Your task to perform on an android device: Open Google Maps and go to "Timeline" Image 0: 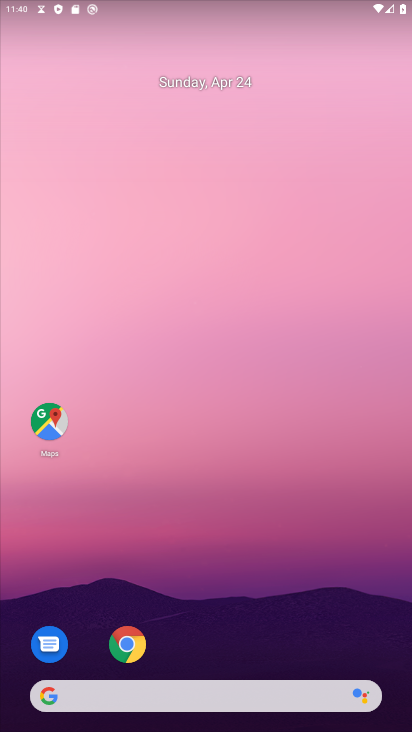
Step 0: click (50, 420)
Your task to perform on an android device: Open Google Maps and go to "Timeline" Image 1: 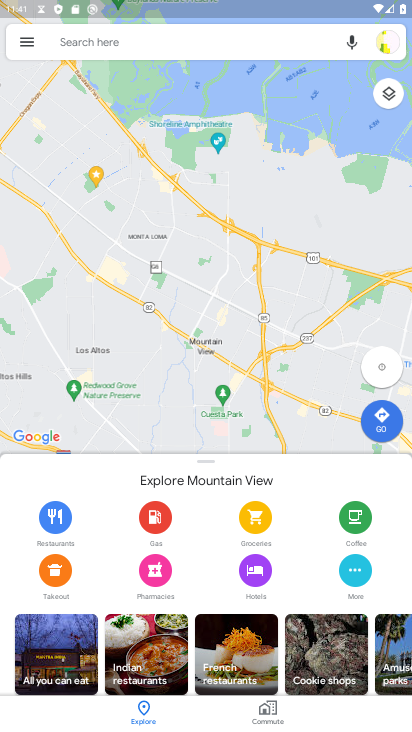
Step 1: click (26, 41)
Your task to perform on an android device: Open Google Maps and go to "Timeline" Image 2: 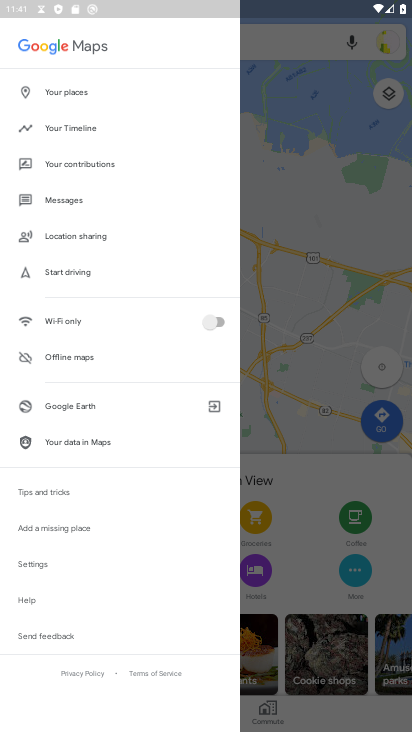
Step 2: click (53, 131)
Your task to perform on an android device: Open Google Maps and go to "Timeline" Image 3: 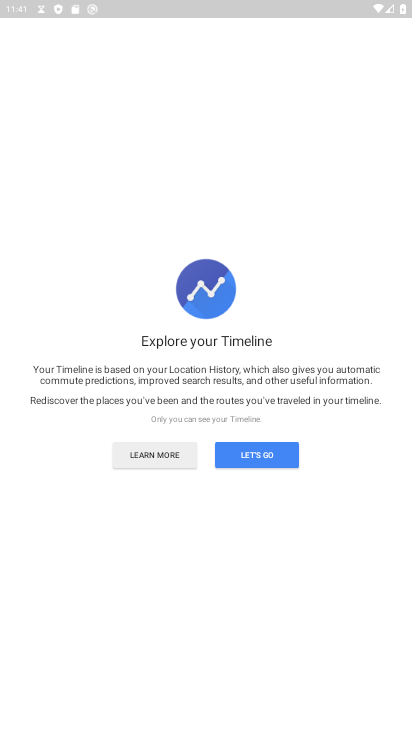
Step 3: click (255, 458)
Your task to perform on an android device: Open Google Maps and go to "Timeline" Image 4: 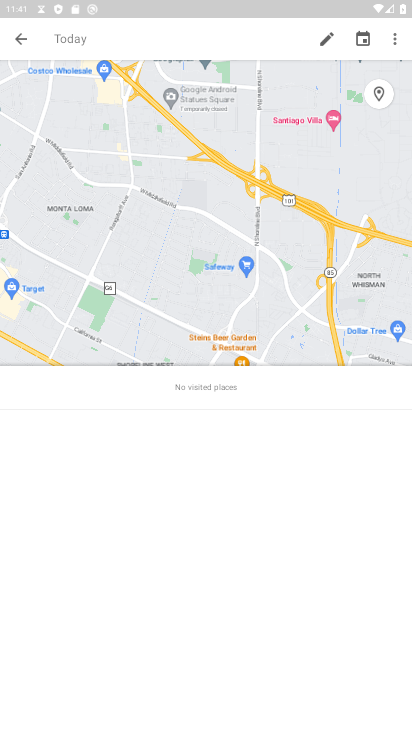
Step 4: task complete